Your task to perform on an android device: Open Google Chrome and click the shortcut for Amazon.com Image 0: 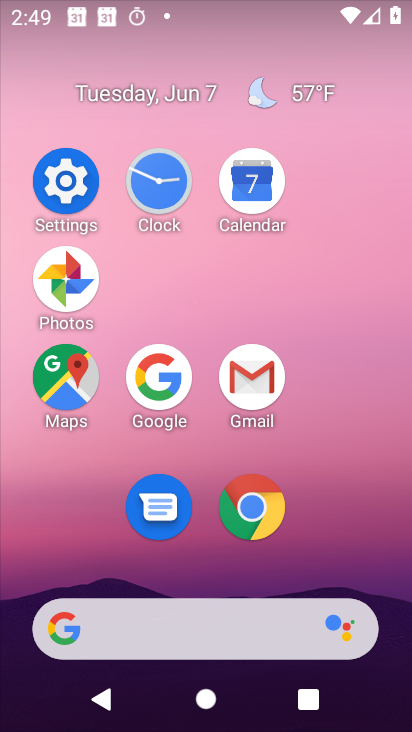
Step 0: click (259, 505)
Your task to perform on an android device: Open Google Chrome and click the shortcut for Amazon.com Image 1: 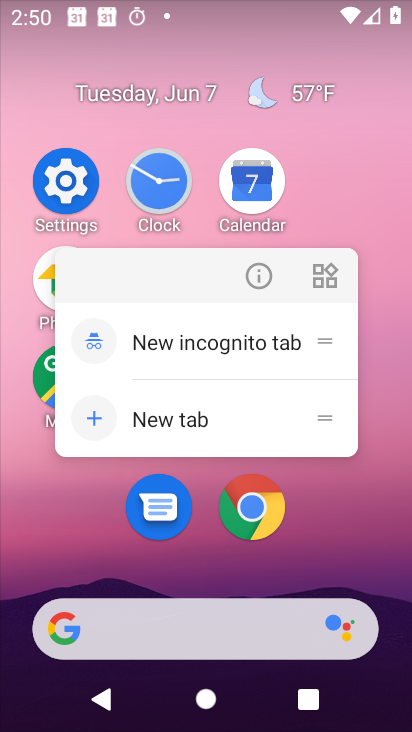
Step 1: click (272, 508)
Your task to perform on an android device: Open Google Chrome and click the shortcut for Amazon.com Image 2: 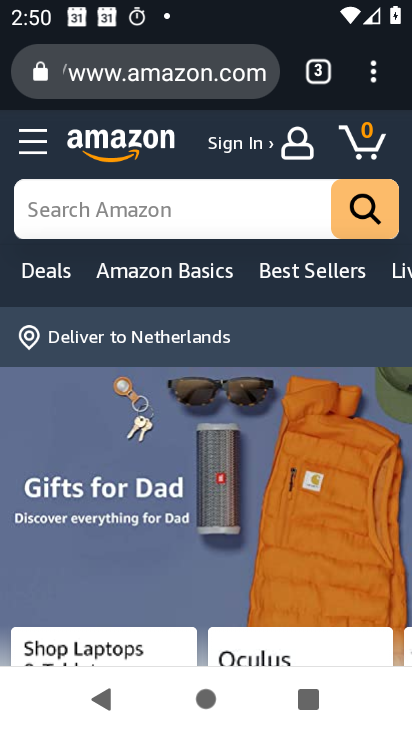
Step 2: click (384, 77)
Your task to perform on an android device: Open Google Chrome and click the shortcut for Amazon.com Image 3: 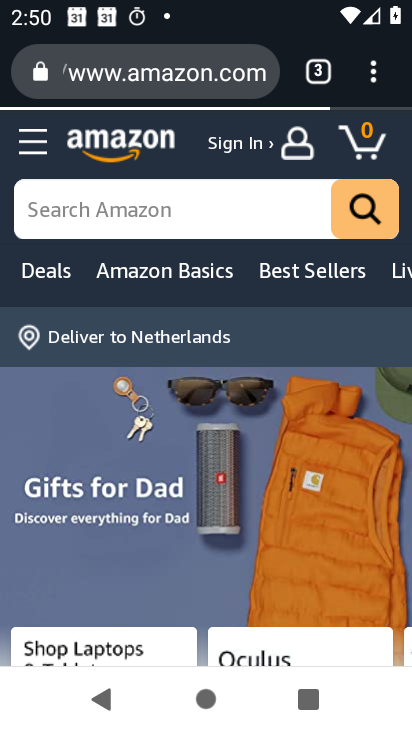
Step 3: click (386, 84)
Your task to perform on an android device: Open Google Chrome and click the shortcut for Amazon.com Image 4: 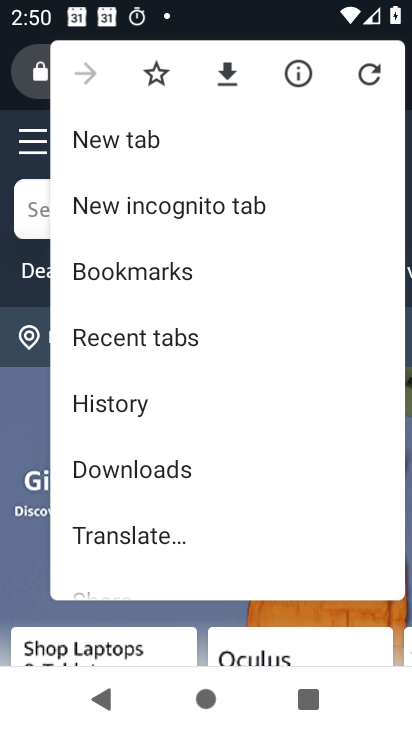
Step 4: drag from (191, 417) to (225, 148)
Your task to perform on an android device: Open Google Chrome and click the shortcut for Amazon.com Image 5: 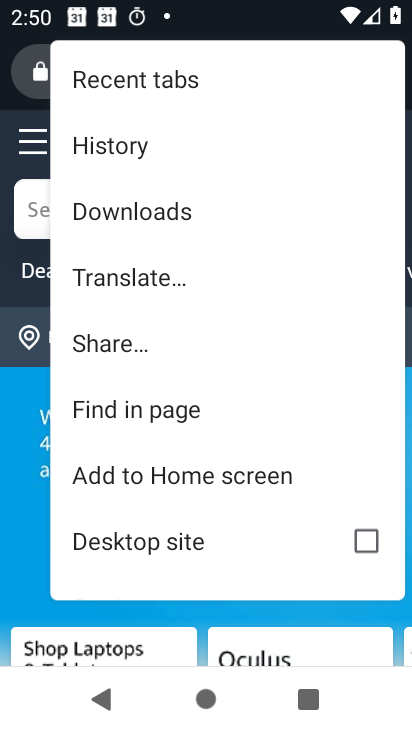
Step 5: click (248, 468)
Your task to perform on an android device: Open Google Chrome and click the shortcut for Amazon.com Image 6: 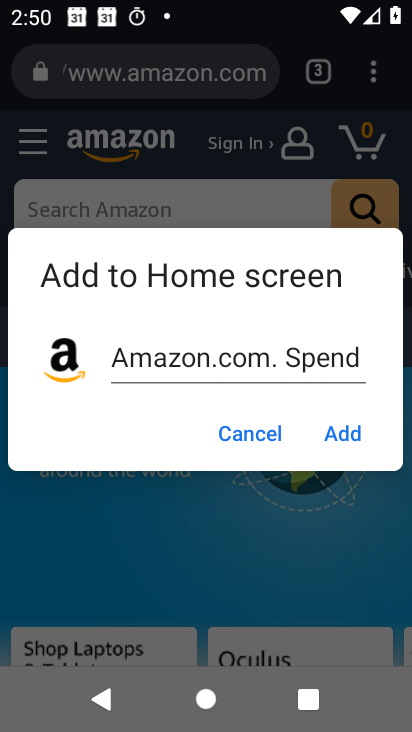
Step 6: click (359, 446)
Your task to perform on an android device: Open Google Chrome and click the shortcut for Amazon.com Image 7: 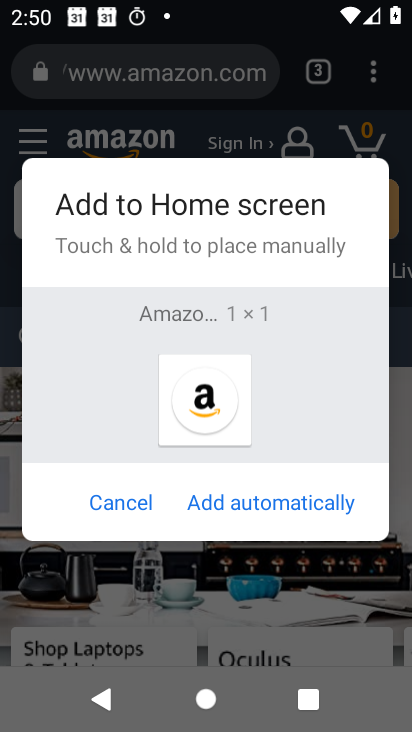
Step 7: click (319, 506)
Your task to perform on an android device: Open Google Chrome and click the shortcut for Amazon.com Image 8: 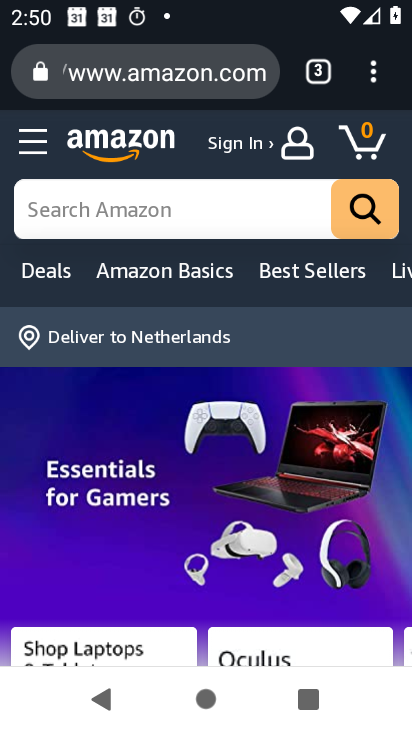
Step 8: task complete